Your task to perform on an android device: open chrome privacy settings Image 0: 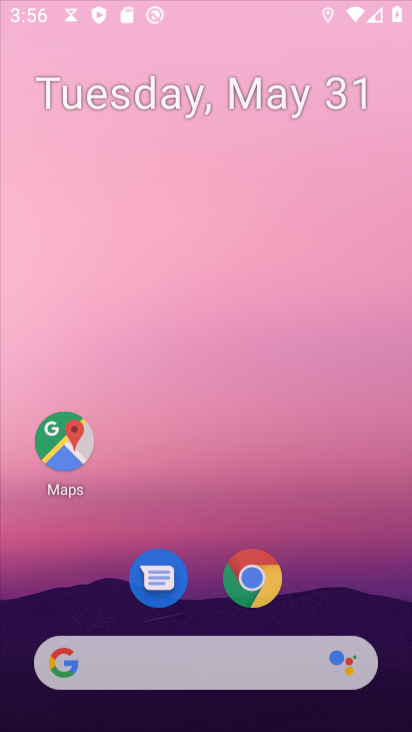
Step 0: click (266, 92)
Your task to perform on an android device: open chrome privacy settings Image 1: 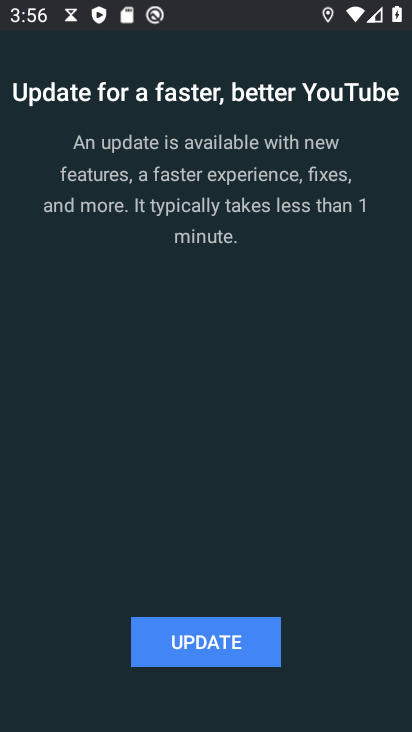
Step 1: press back button
Your task to perform on an android device: open chrome privacy settings Image 2: 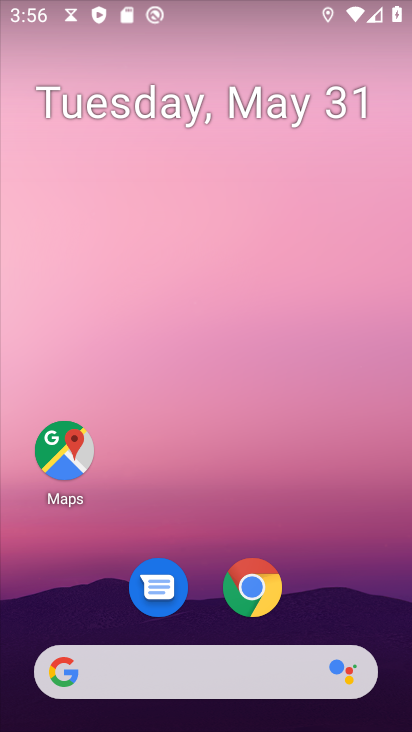
Step 2: click (248, 605)
Your task to perform on an android device: open chrome privacy settings Image 3: 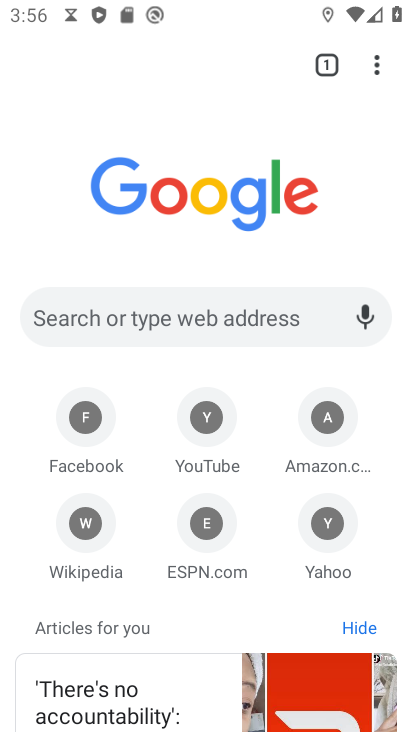
Step 3: drag from (379, 66) to (259, 563)
Your task to perform on an android device: open chrome privacy settings Image 4: 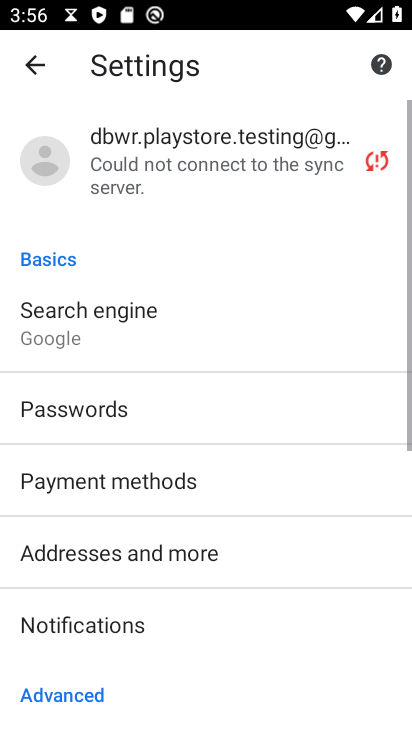
Step 4: drag from (126, 690) to (270, 370)
Your task to perform on an android device: open chrome privacy settings Image 5: 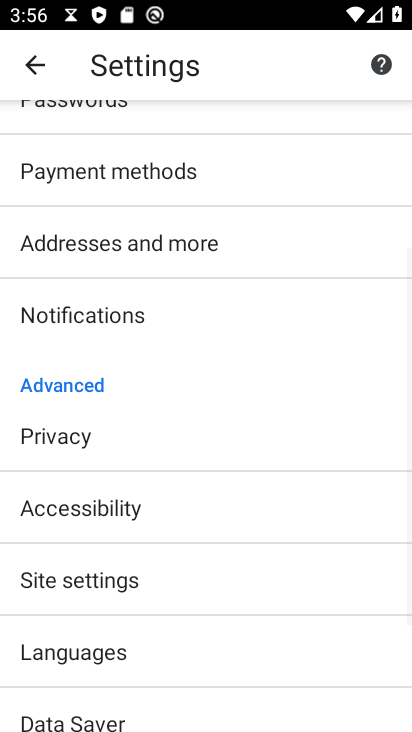
Step 5: click (192, 434)
Your task to perform on an android device: open chrome privacy settings Image 6: 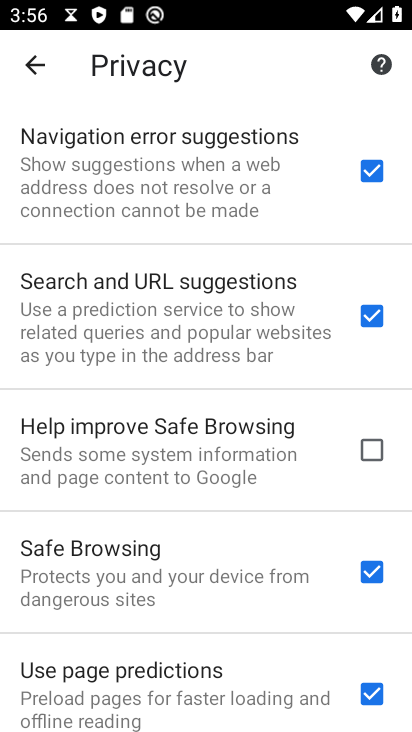
Step 6: task complete